Your task to perform on an android device: Go to Amazon Image 0: 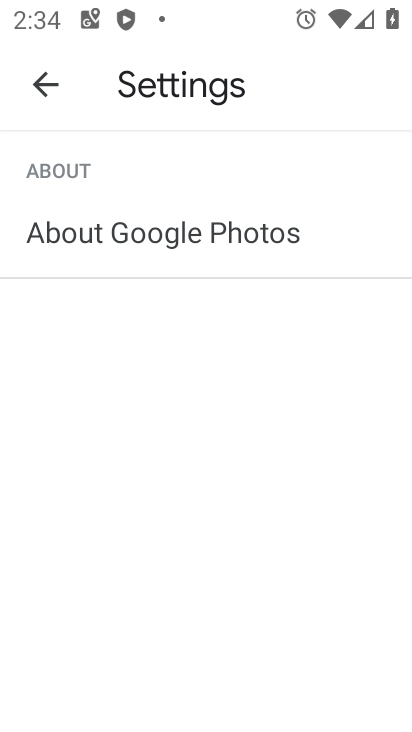
Step 0: press home button
Your task to perform on an android device: Go to Amazon Image 1: 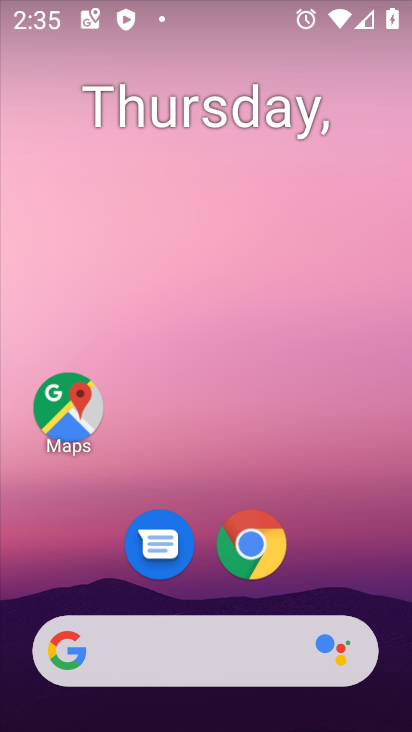
Step 1: click (256, 515)
Your task to perform on an android device: Go to Amazon Image 2: 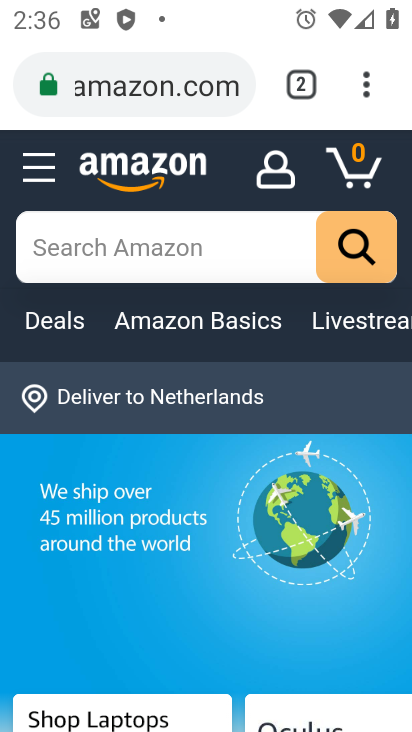
Step 2: task complete